Your task to perform on an android device: show emergency info Image 0: 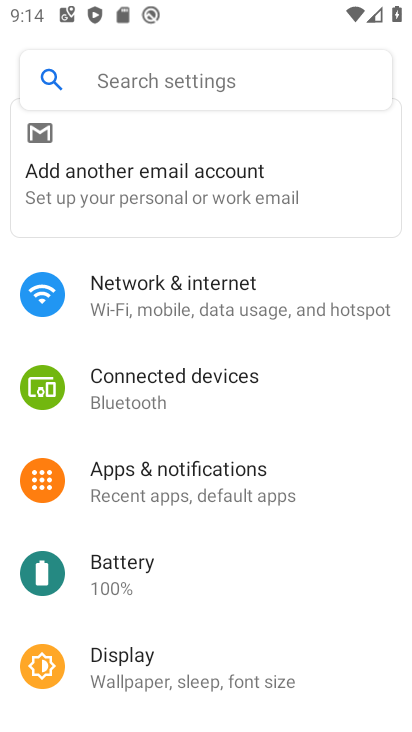
Step 0: drag from (194, 628) to (265, 114)
Your task to perform on an android device: show emergency info Image 1: 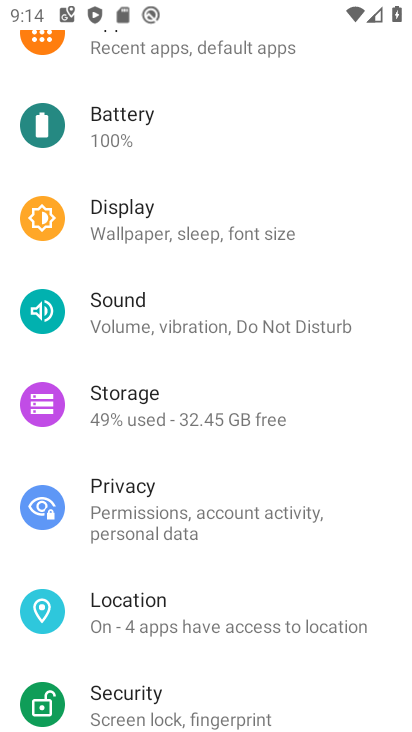
Step 1: drag from (203, 630) to (234, 84)
Your task to perform on an android device: show emergency info Image 2: 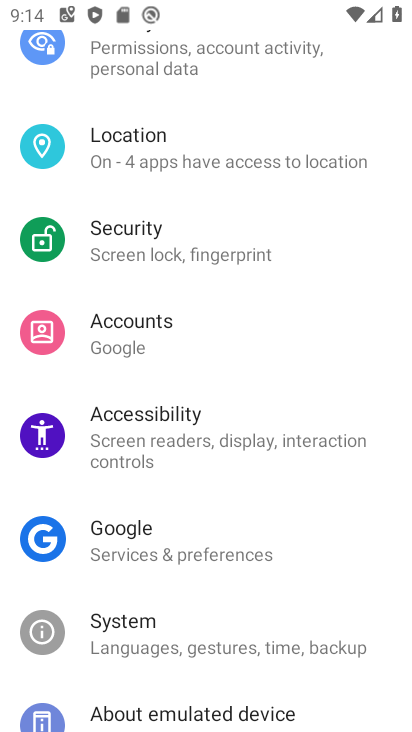
Step 2: drag from (242, 686) to (249, 104)
Your task to perform on an android device: show emergency info Image 3: 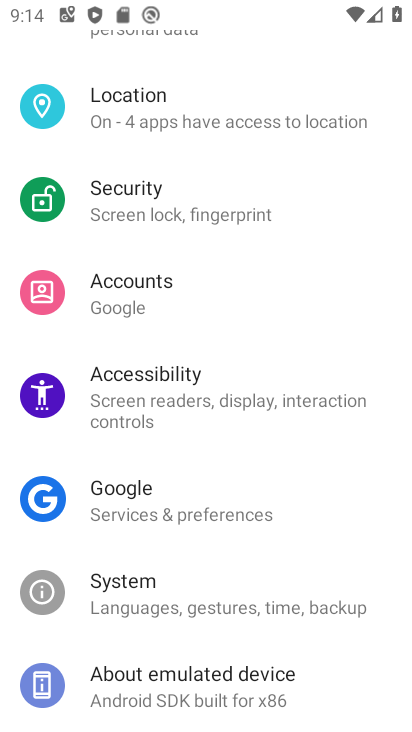
Step 3: click (173, 703)
Your task to perform on an android device: show emergency info Image 4: 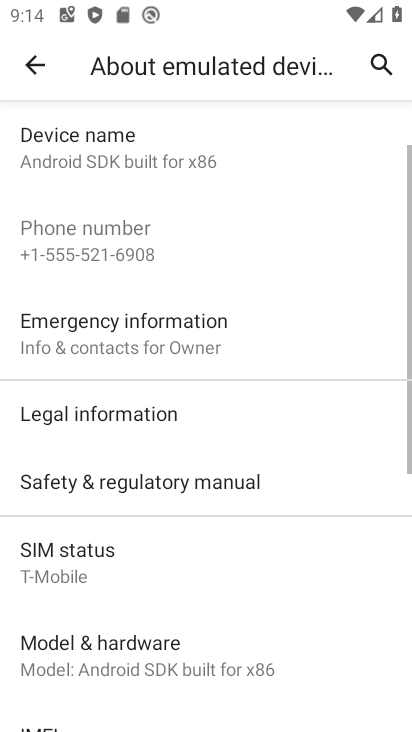
Step 4: click (142, 340)
Your task to perform on an android device: show emergency info Image 5: 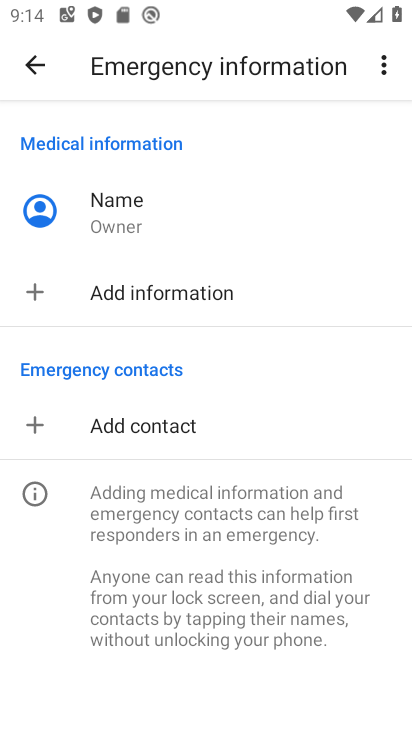
Step 5: task complete